Your task to perform on an android device: turn off airplane mode Image 0: 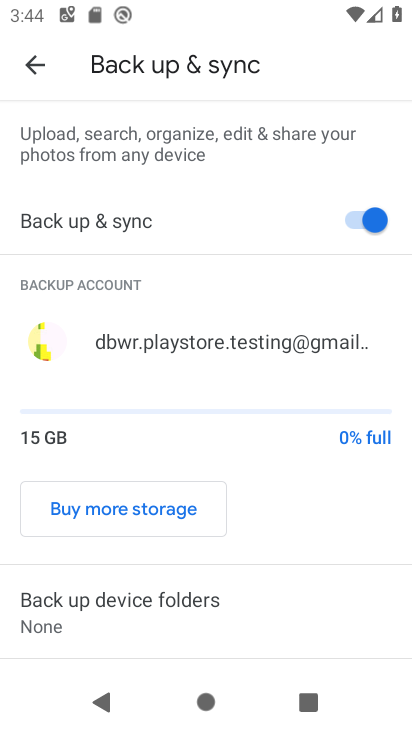
Step 0: press home button
Your task to perform on an android device: turn off airplane mode Image 1: 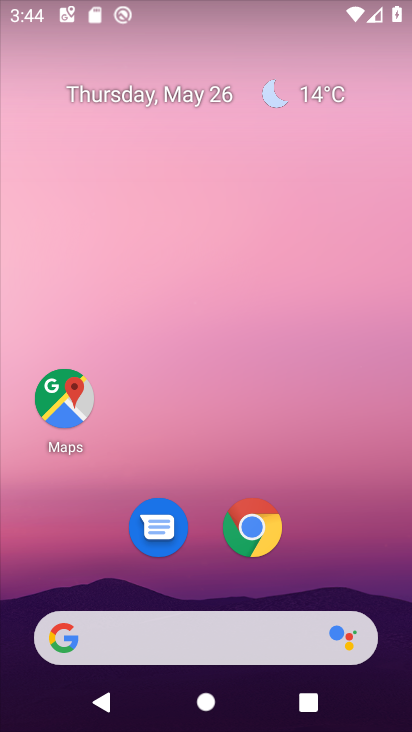
Step 1: drag from (335, 588) to (293, 51)
Your task to perform on an android device: turn off airplane mode Image 2: 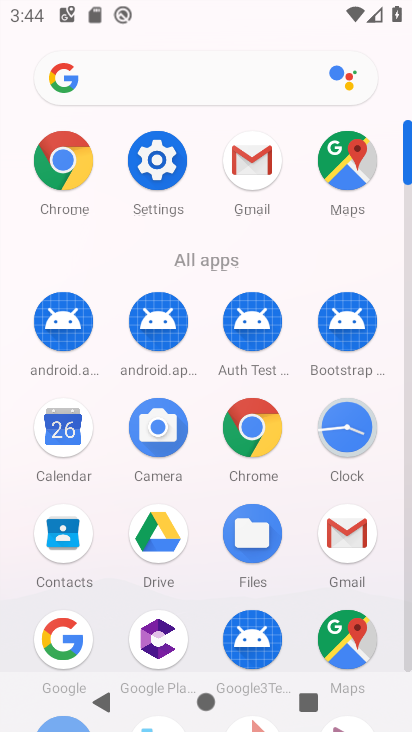
Step 2: click (155, 174)
Your task to perform on an android device: turn off airplane mode Image 3: 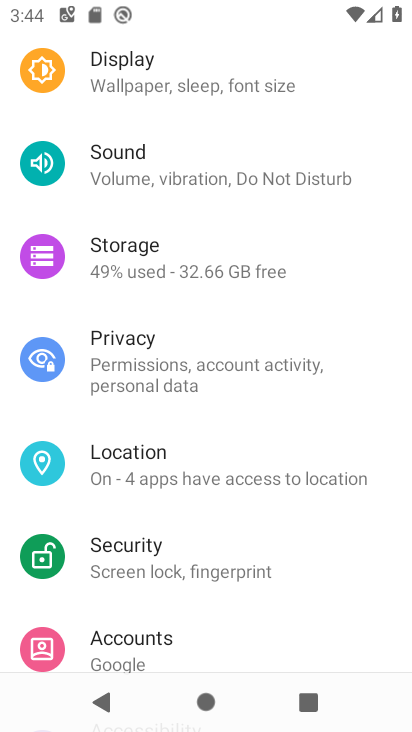
Step 3: drag from (212, 112) to (230, 558)
Your task to perform on an android device: turn off airplane mode Image 4: 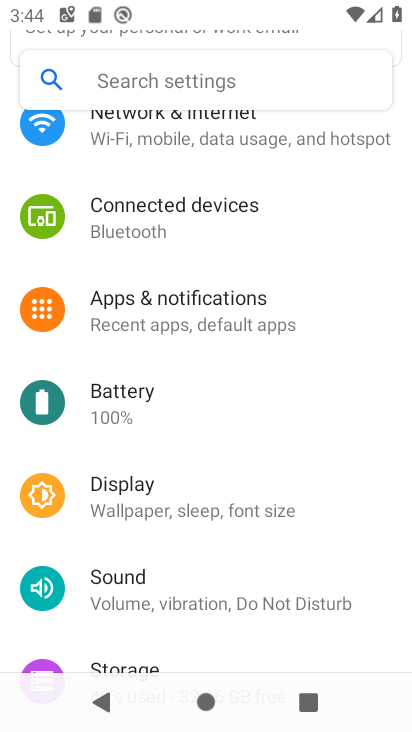
Step 4: click (233, 149)
Your task to perform on an android device: turn off airplane mode Image 5: 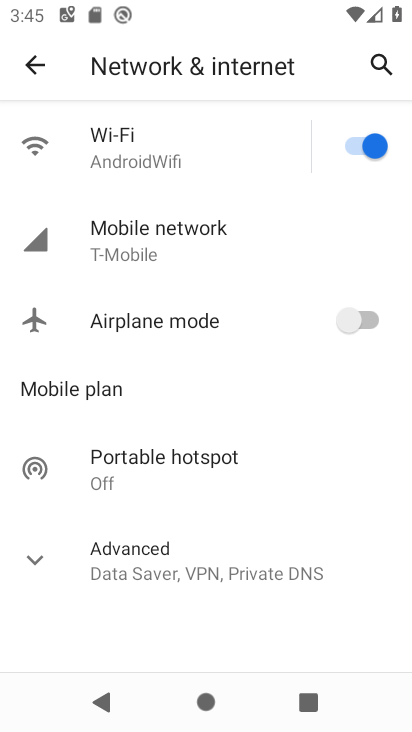
Step 5: task complete